Your task to perform on an android device: Go to Google maps Image 0: 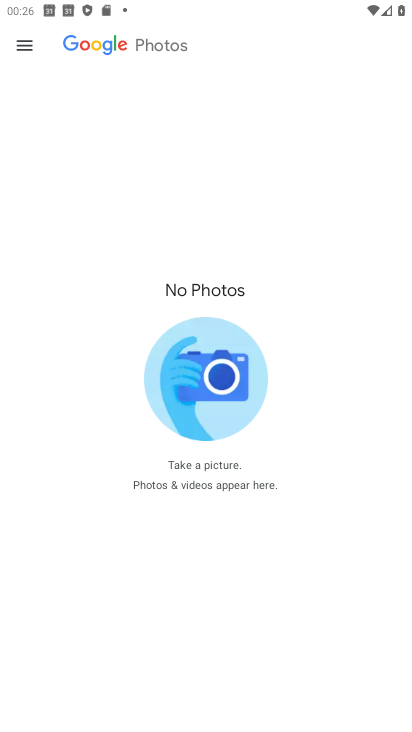
Step 0: press home button
Your task to perform on an android device: Go to Google maps Image 1: 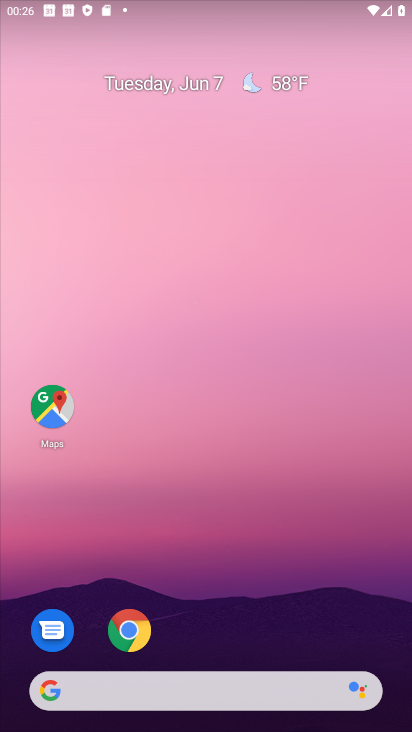
Step 1: drag from (366, 633) to (317, 197)
Your task to perform on an android device: Go to Google maps Image 2: 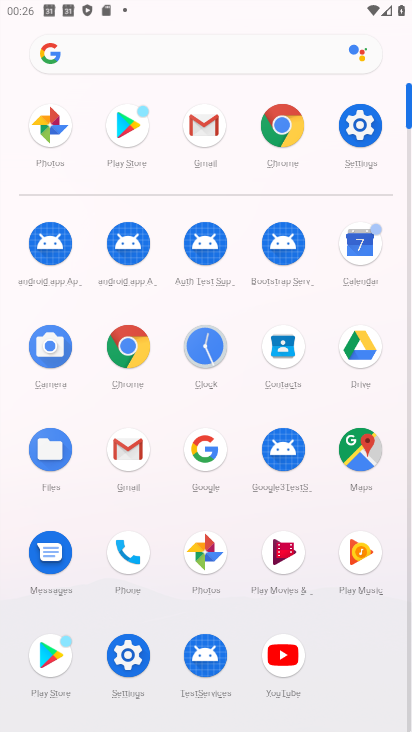
Step 2: click (359, 454)
Your task to perform on an android device: Go to Google maps Image 3: 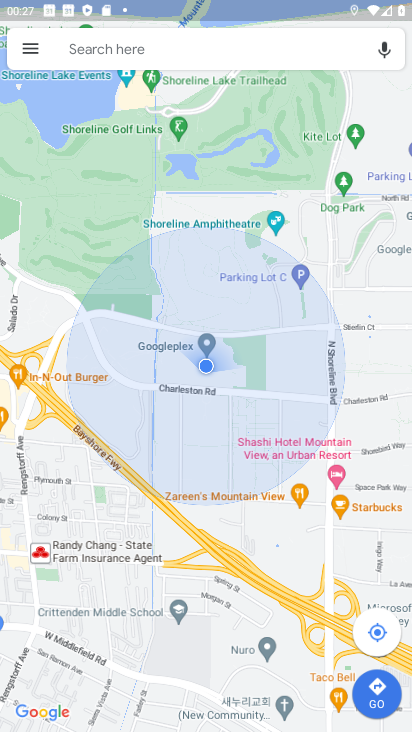
Step 3: task complete